Your task to perform on an android device: turn on javascript in the chrome app Image 0: 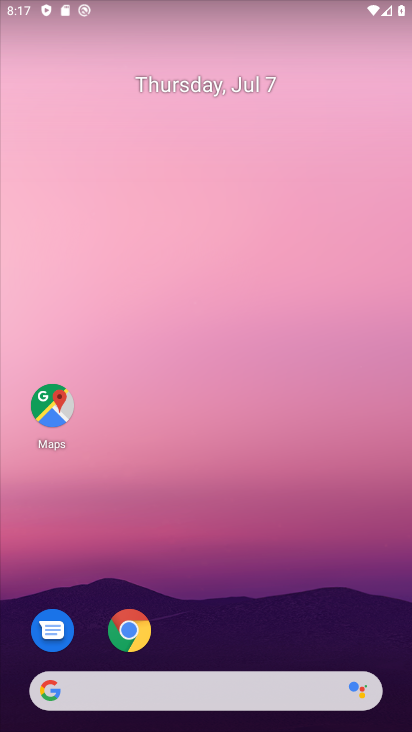
Step 0: click (150, 632)
Your task to perform on an android device: turn on javascript in the chrome app Image 1: 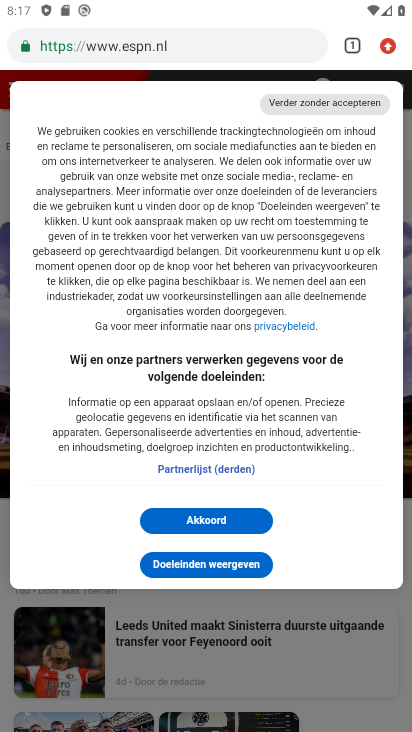
Step 1: click (390, 45)
Your task to perform on an android device: turn on javascript in the chrome app Image 2: 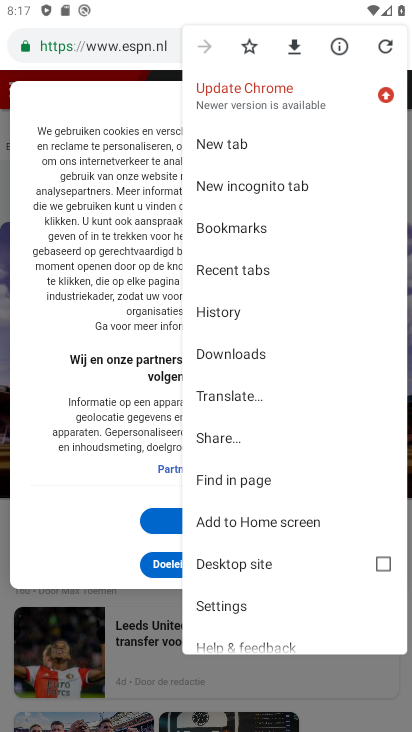
Step 2: click (227, 605)
Your task to perform on an android device: turn on javascript in the chrome app Image 3: 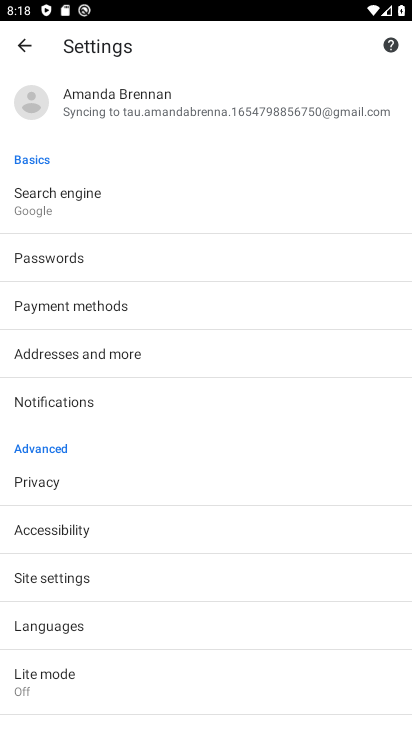
Step 3: click (73, 573)
Your task to perform on an android device: turn on javascript in the chrome app Image 4: 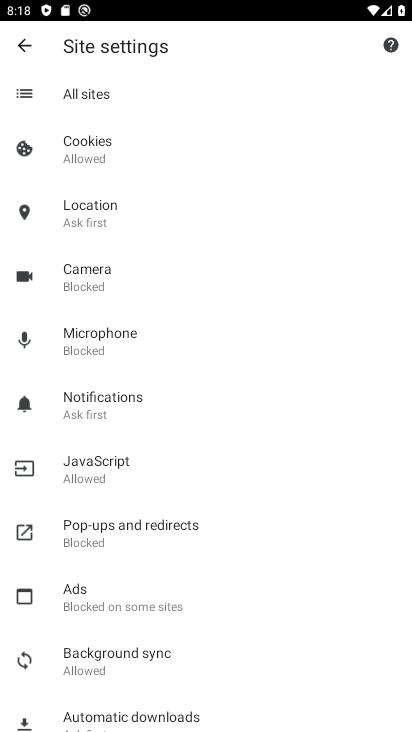
Step 4: click (138, 462)
Your task to perform on an android device: turn on javascript in the chrome app Image 5: 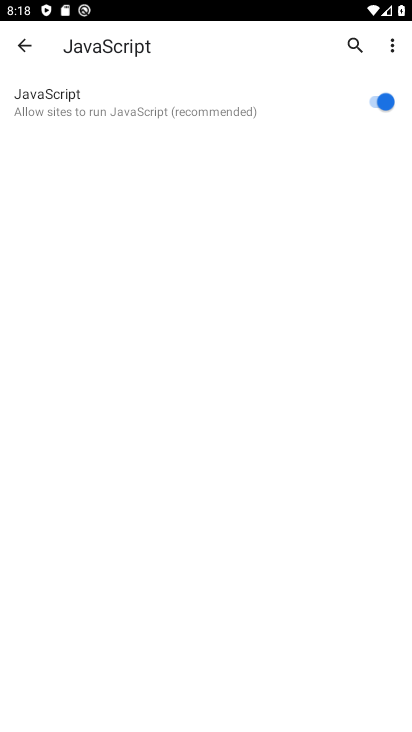
Step 5: task complete